Your task to perform on an android device: Show me the alarms in the clock app Image 0: 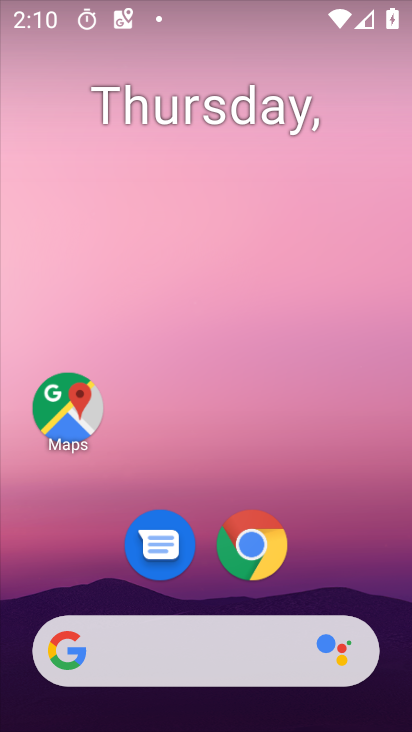
Step 0: drag from (213, 721) to (207, 191)
Your task to perform on an android device: Show me the alarms in the clock app Image 1: 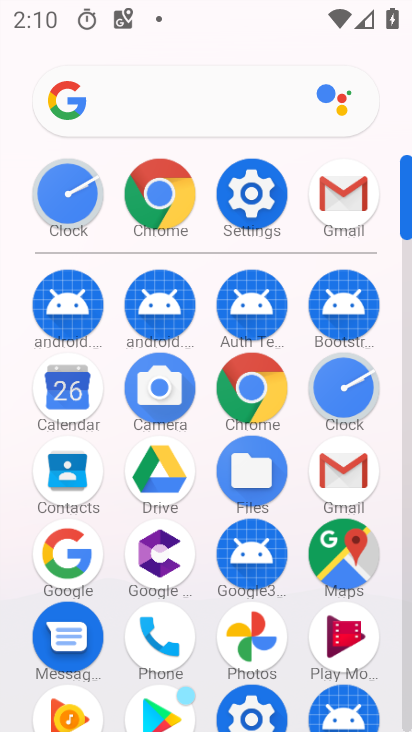
Step 1: click (347, 376)
Your task to perform on an android device: Show me the alarms in the clock app Image 2: 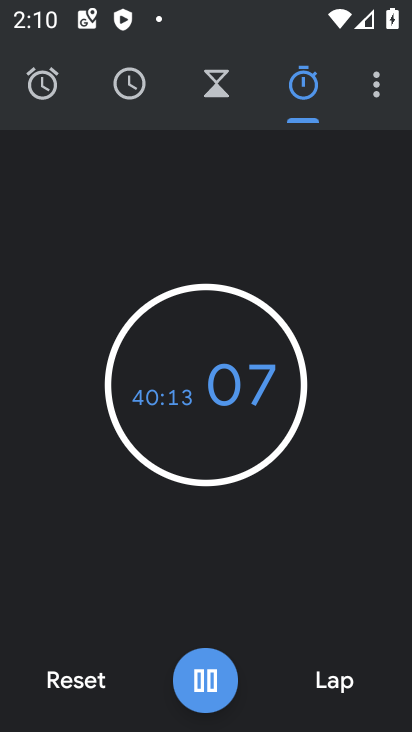
Step 2: click (40, 78)
Your task to perform on an android device: Show me the alarms in the clock app Image 3: 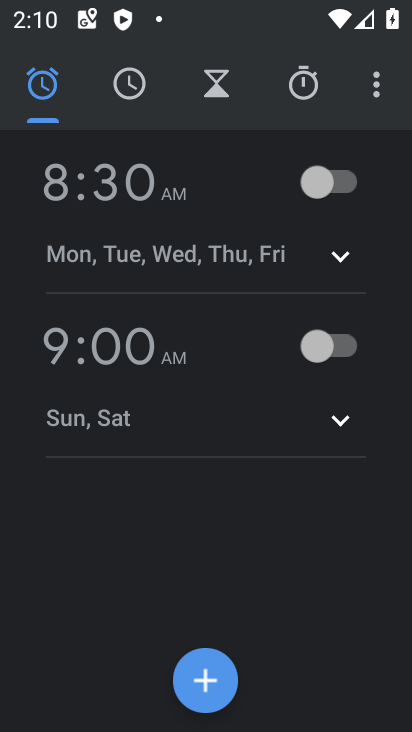
Step 3: task complete